Your task to perform on an android device: Open calendar and show me the first week of next month Image 0: 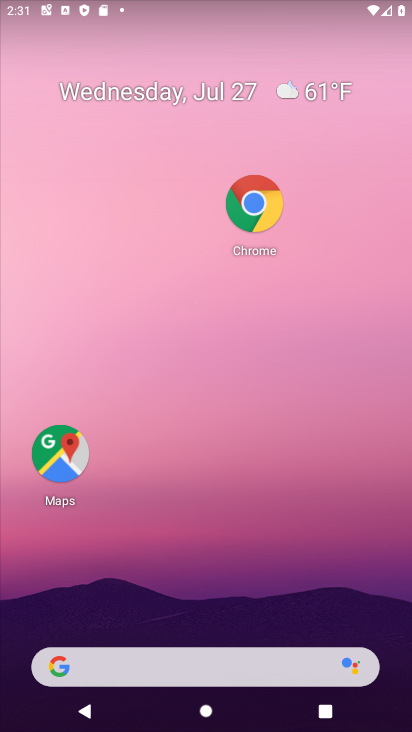
Step 0: drag from (219, 619) to (219, 133)
Your task to perform on an android device: Open calendar and show me the first week of next month Image 1: 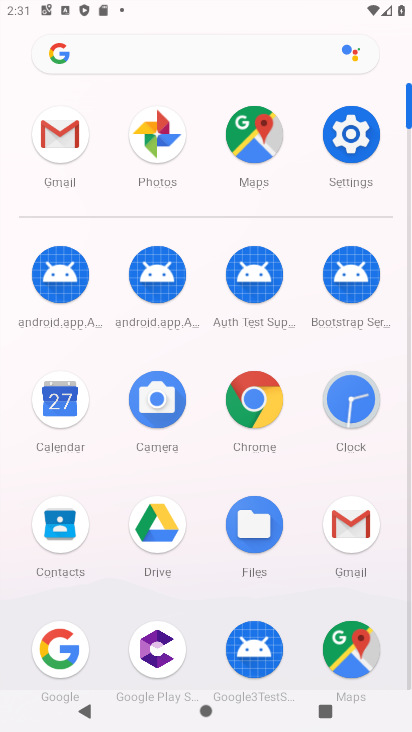
Step 1: click (69, 418)
Your task to perform on an android device: Open calendar and show me the first week of next month Image 2: 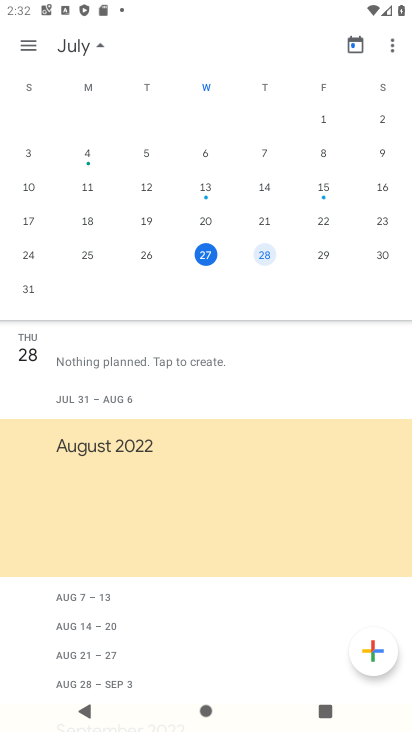
Step 2: task complete